Your task to perform on an android device: empty trash in google photos Image 0: 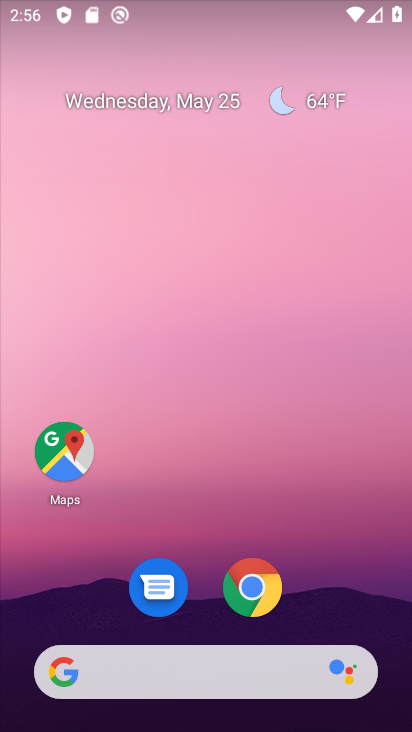
Step 0: drag from (374, 615) to (219, 64)
Your task to perform on an android device: empty trash in google photos Image 1: 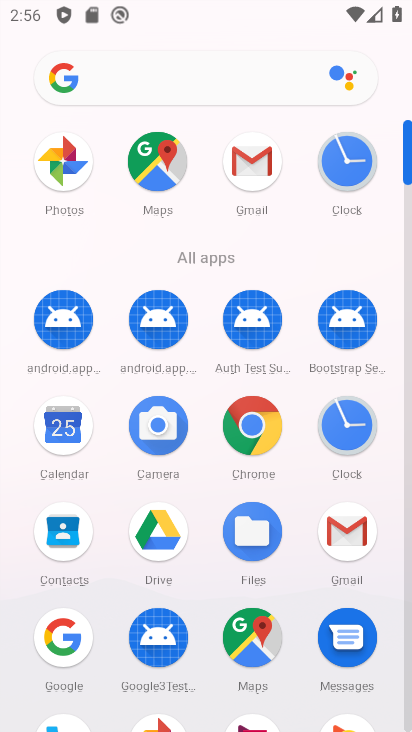
Step 1: click (66, 179)
Your task to perform on an android device: empty trash in google photos Image 2: 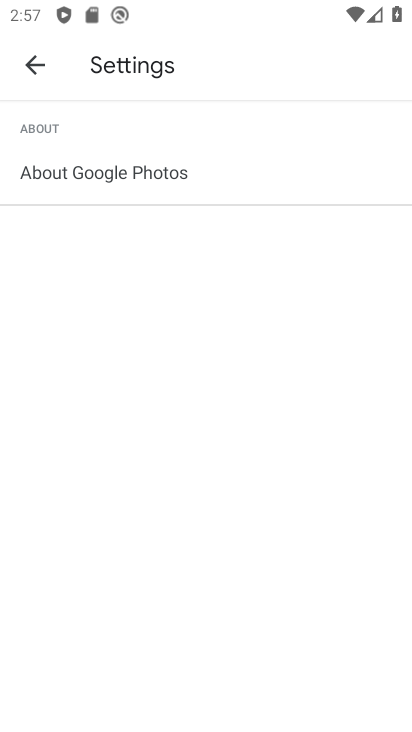
Step 2: press back button
Your task to perform on an android device: empty trash in google photos Image 3: 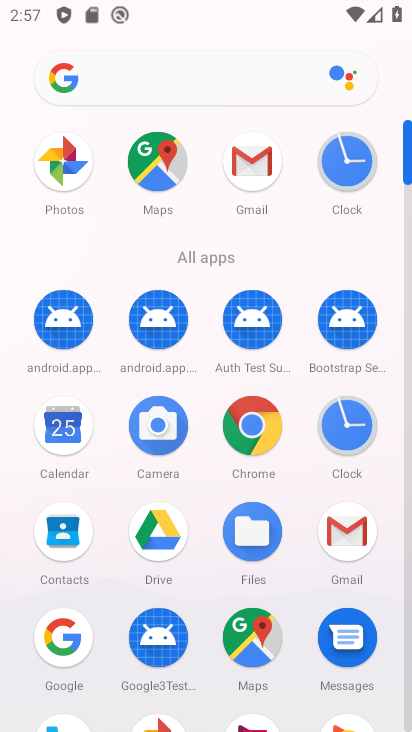
Step 3: click (80, 168)
Your task to perform on an android device: empty trash in google photos Image 4: 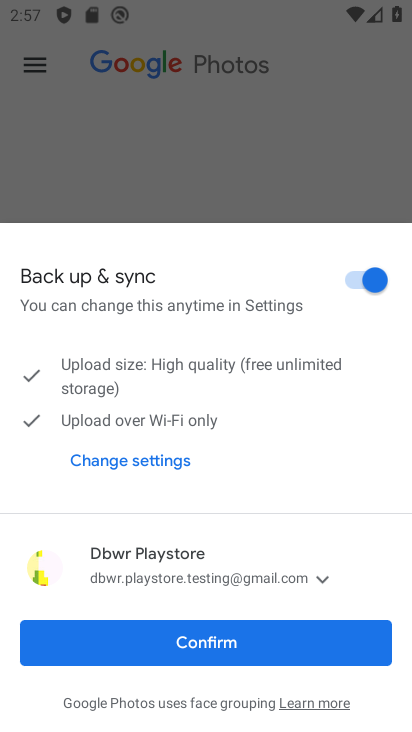
Step 4: click (213, 633)
Your task to perform on an android device: empty trash in google photos Image 5: 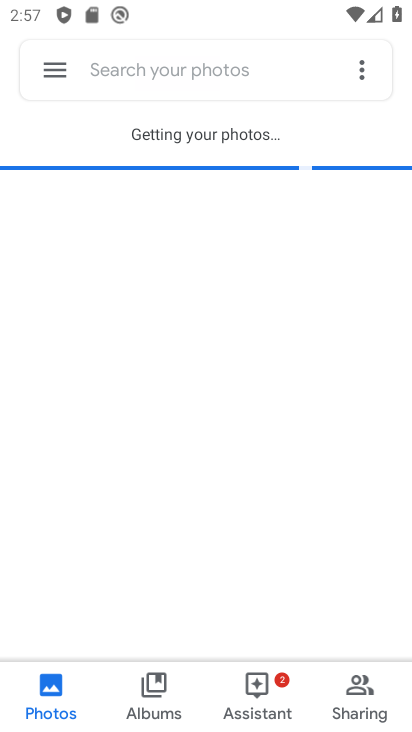
Step 5: click (47, 75)
Your task to perform on an android device: empty trash in google photos Image 6: 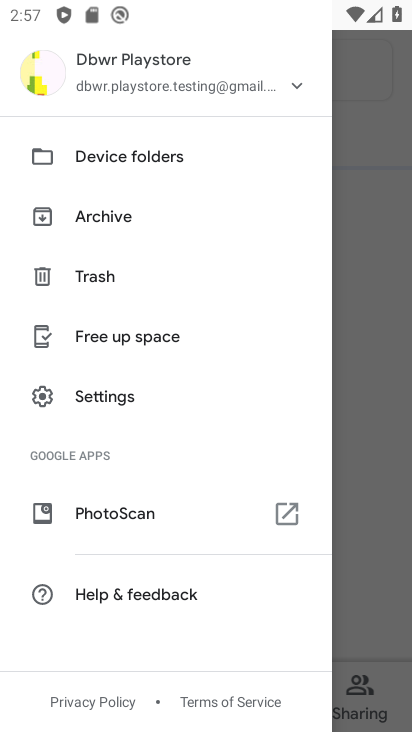
Step 6: click (106, 284)
Your task to perform on an android device: empty trash in google photos Image 7: 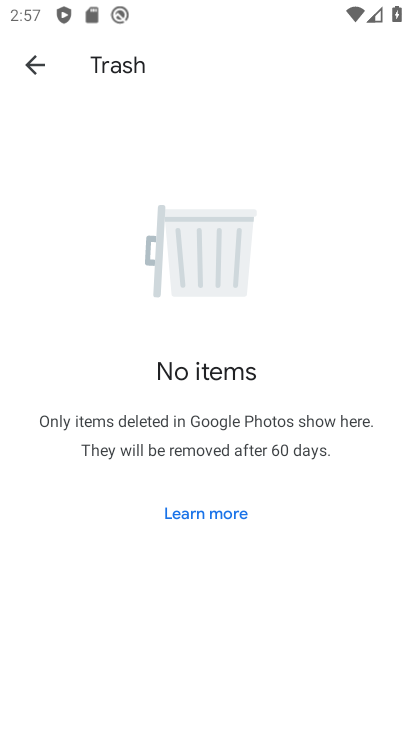
Step 7: task complete